Your task to perform on an android device: Open CNN.com Image 0: 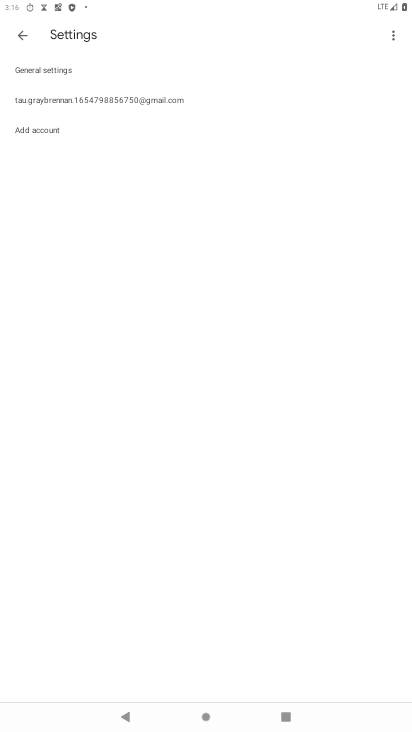
Step 0: press home button
Your task to perform on an android device: Open CNN.com Image 1: 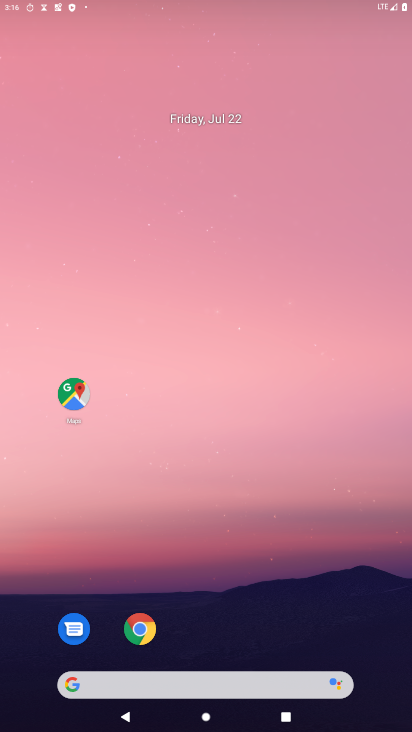
Step 1: drag from (236, 709) to (262, 9)
Your task to perform on an android device: Open CNN.com Image 2: 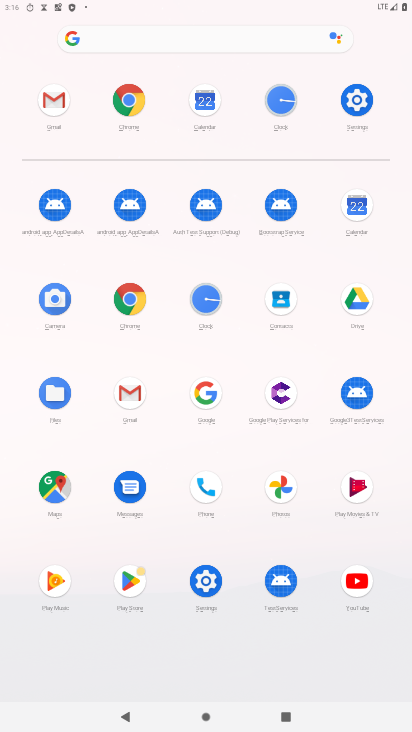
Step 2: click (143, 300)
Your task to perform on an android device: Open CNN.com Image 3: 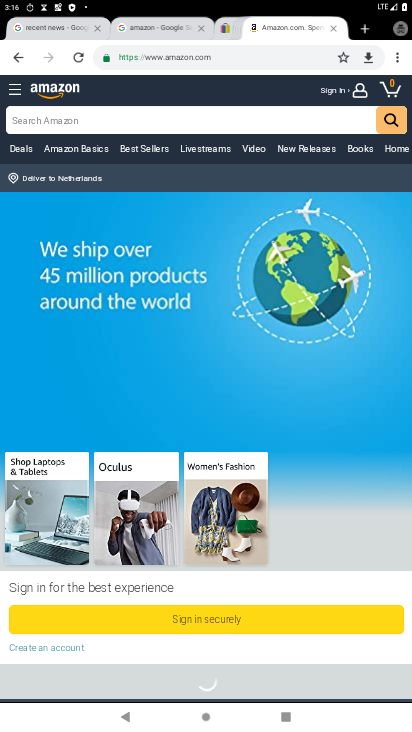
Step 3: click (173, 53)
Your task to perform on an android device: Open CNN.com Image 4: 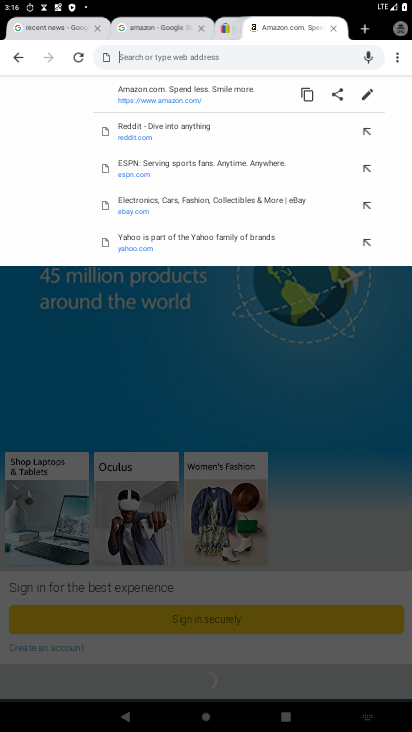
Step 4: type "cnn.com"
Your task to perform on an android device: Open CNN.com Image 5: 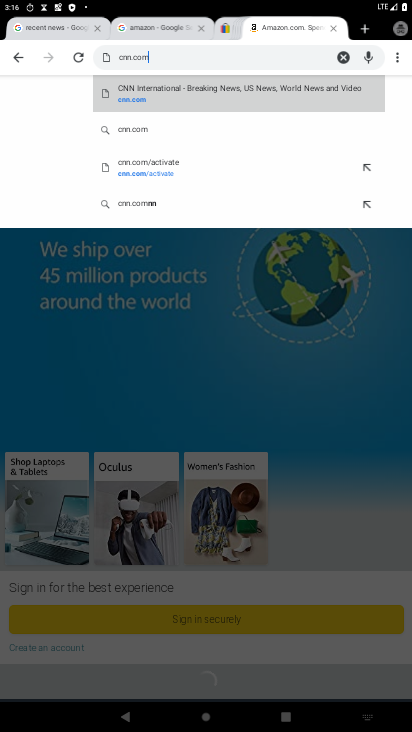
Step 5: click (309, 93)
Your task to perform on an android device: Open CNN.com Image 6: 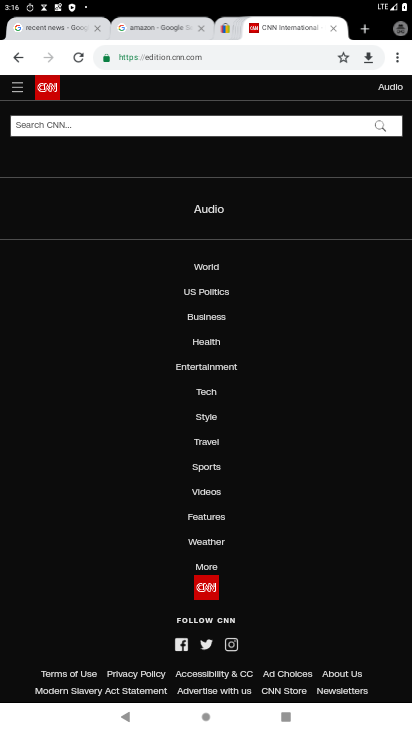
Step 6: task complete